Your task to perform on an android device: check storage Image 0: 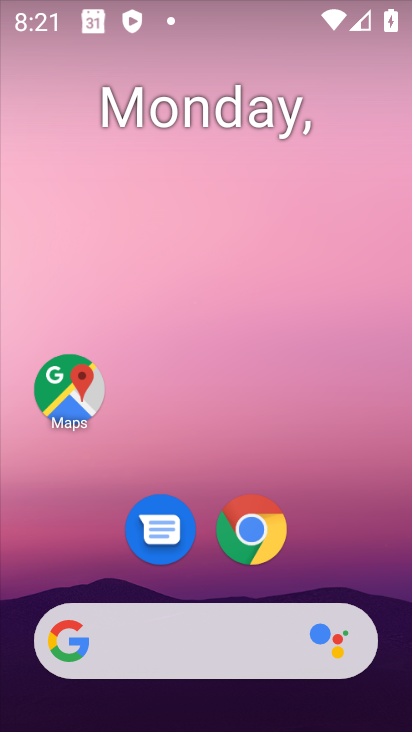
Step 0: drag from (258, 660) to (302, 128)
Your task to perform on an android device: check storage Image 1: 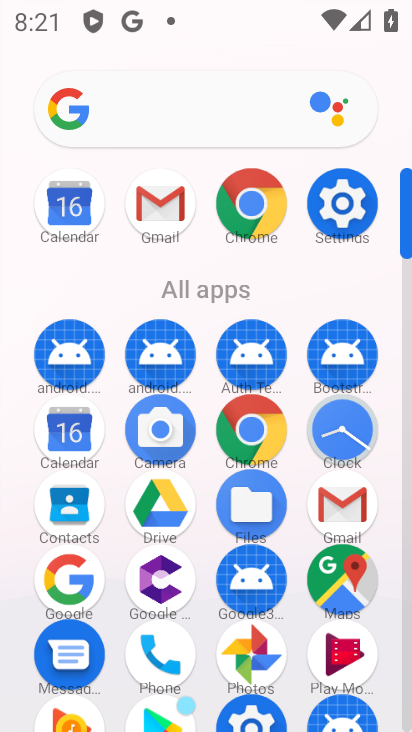
Step 1: click (347, 205)
Your task to perform on an android device: check storage Image 2: 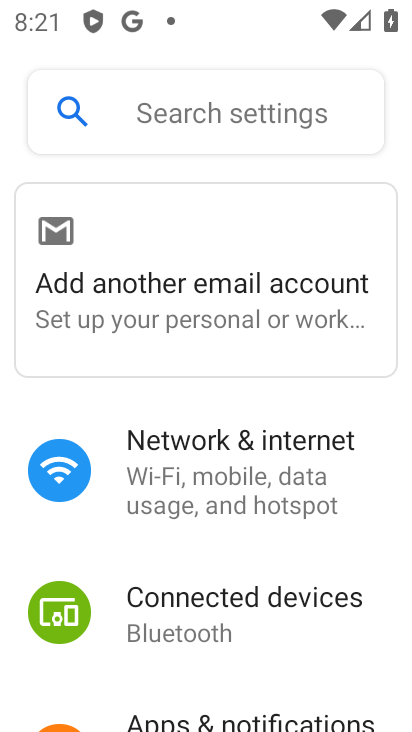
Step 2: click (189, 99)
Your task to perform on an android device: check storage Image 3: 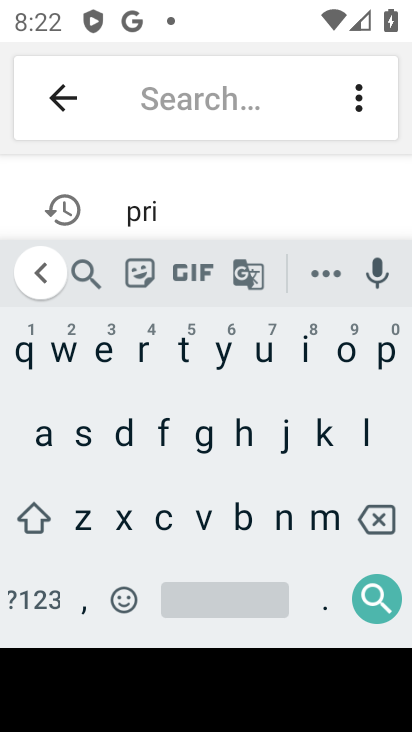
Step 3: click (90, 422)
Your task to perform on an android device: check storage Image 4: 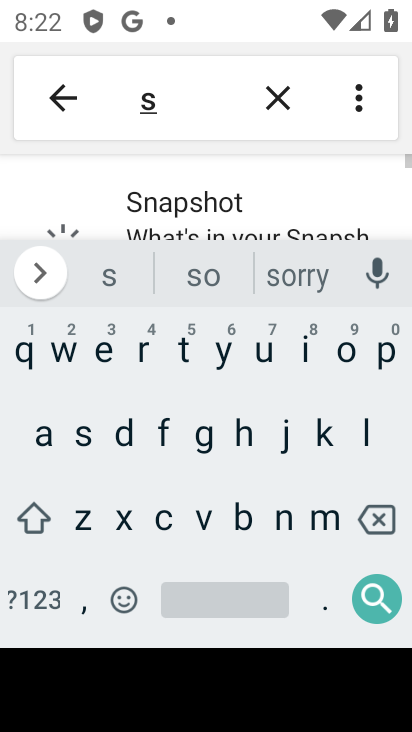
Step 4: click (193, 351)
Your task to perform on an android device: check storage Image 5: 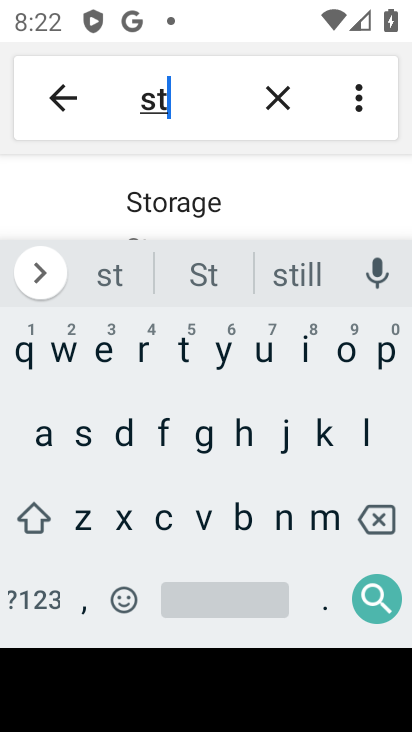
Step 5: click (196, 203)
Your task to perform on an android device: check storage Image 6: 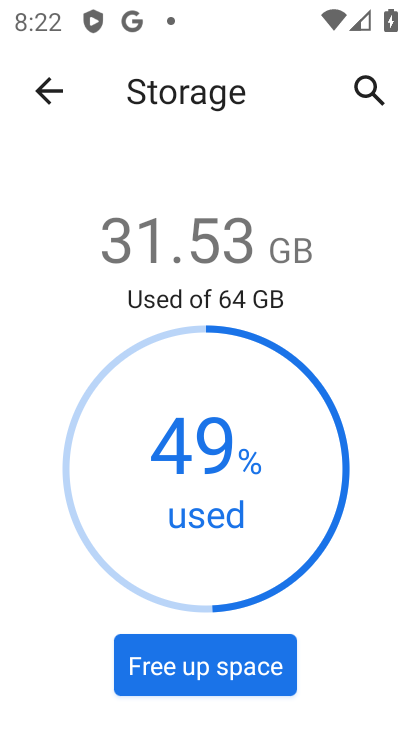
Step 6: task complete